Your task to perform on an android device: Open the calendar app, open the side menu, and click the "Day" option Image 0: 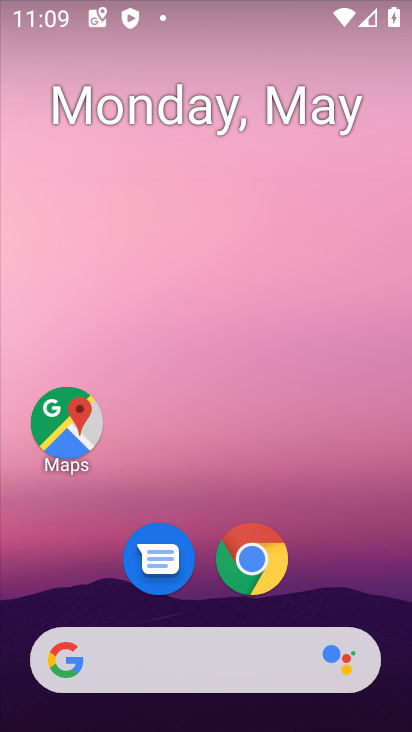
Step 0: drag from (360, 621) to (321, 86)
Your task to perform on an android device: Open the calendar app, open the side menu, and click the "Day" option Image 1: 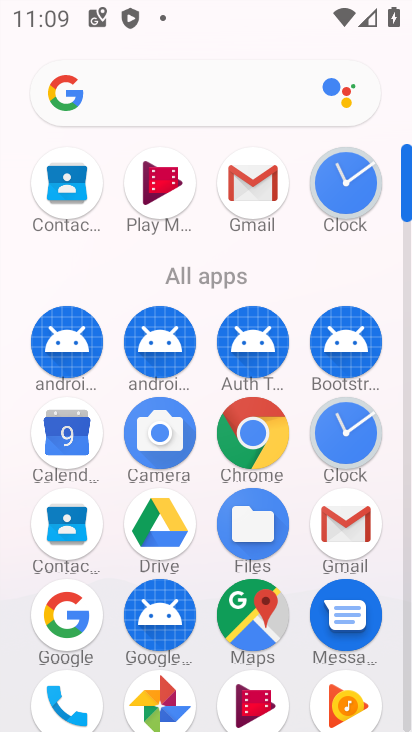
Step 1: click (66, 436)
Your task to perform on an android device: Open the calendar app, open the side menu, and click the "Day" option Image 2: 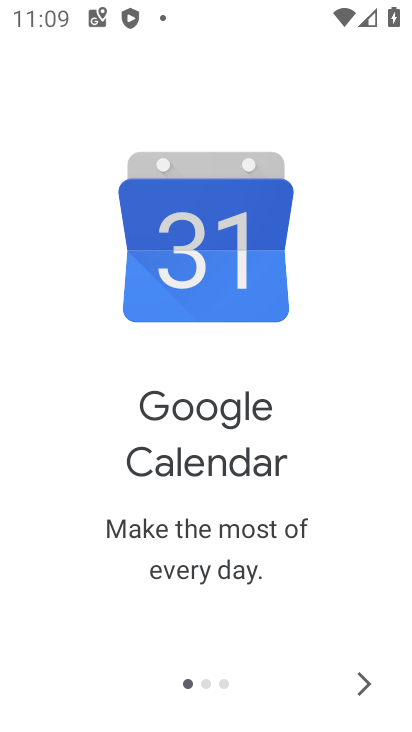
Step 2: click (359, 697)
Your task to perform on an android device: Open the calendar app, open the side menu, and click the "Day" option Image 3: 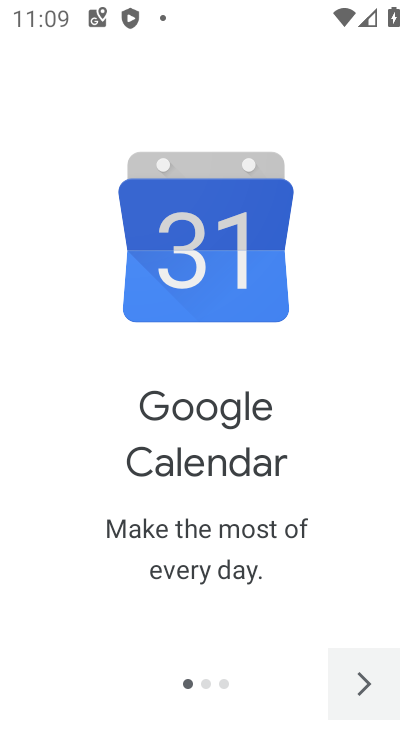
Step 3: click (359, 699)
Your task to perform on an android device: Open the calendar app, open the side menu, and click the "Day" option Image 4: 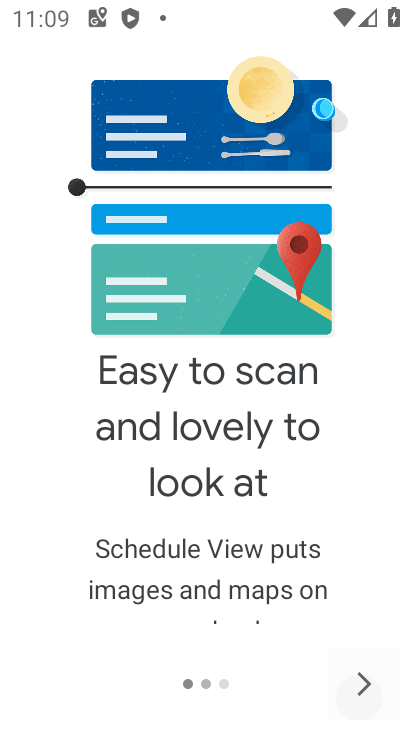
Step 4: click (353, 694)
Your task to perform on an android device: Open the calendar app, open the side menu, and click the "Day" option Image 5: 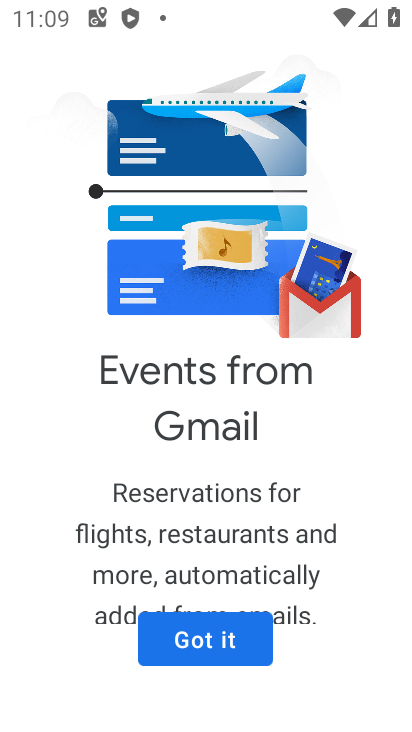
Step 5: click (213, 608)
Your task to perform on an android device: Open the calendar app, open the side menu, and click the "Day" option Image 6: 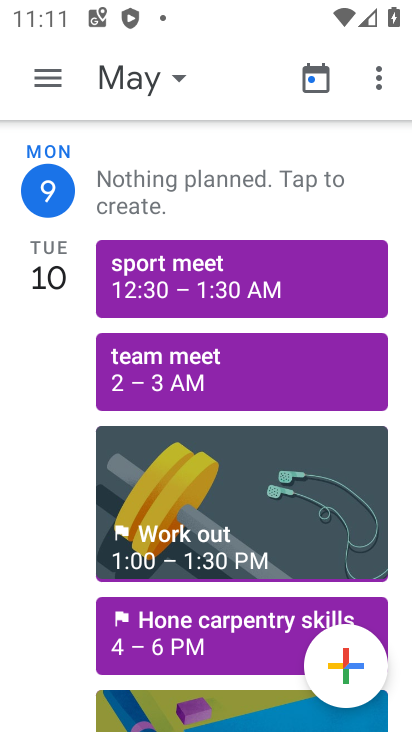
Step 6: click (33, 103)
Your task to perform on an android device: Open the calendar app, open the side menu, and click the "Day" option Image 7: 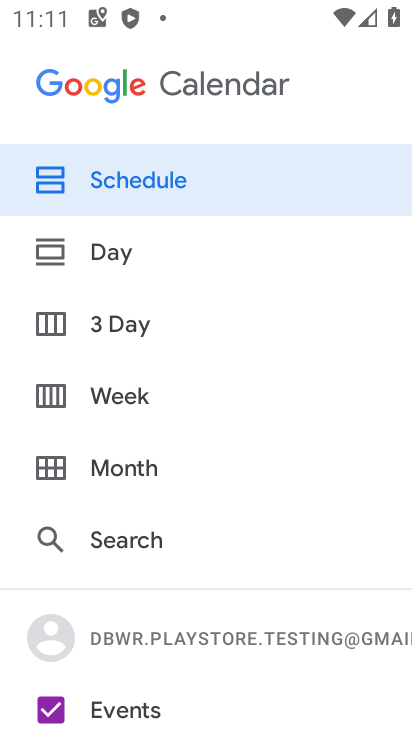
Step 7: click (42, 249)
Your task to perform on an android device: Open the calendar app, open the side menu, and click the "Day" option Image 8: 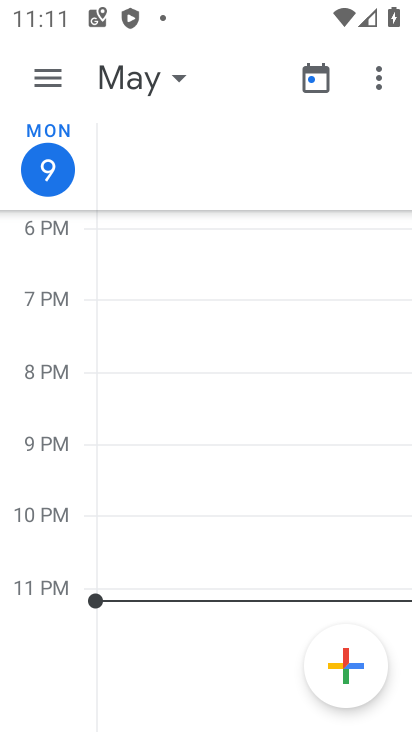
Step 8: task complete